Your task to perform on an android device: turn on airplane mode Image 0: 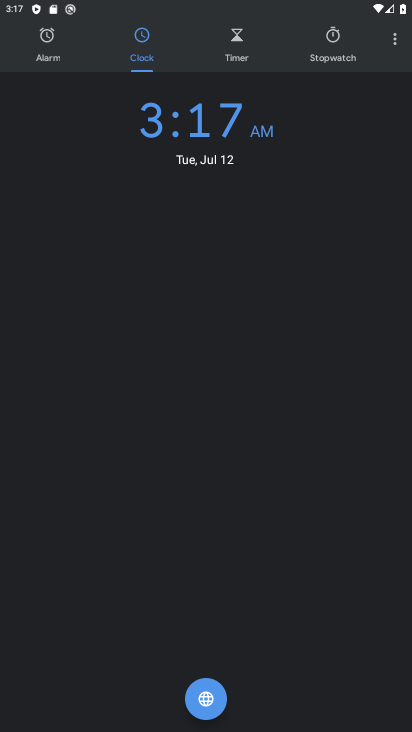
Step 0: press home button
Your task to perform on an android device: turn on airplane mode Image 1: 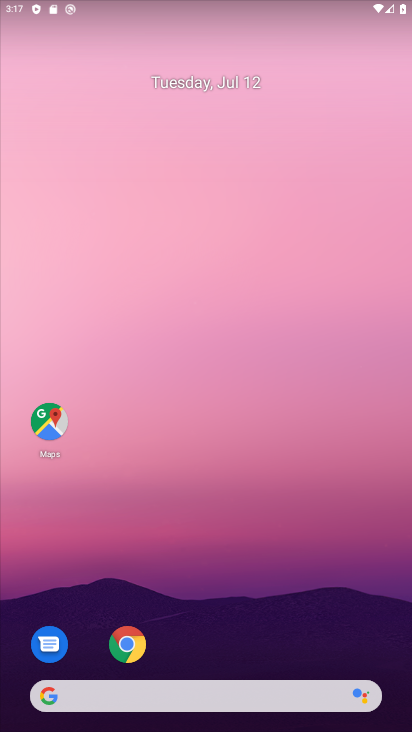
Step 1: drag from (251, 432) to (219, 62)
Your task to perform on an android device: turn on airplane mode Image 2: 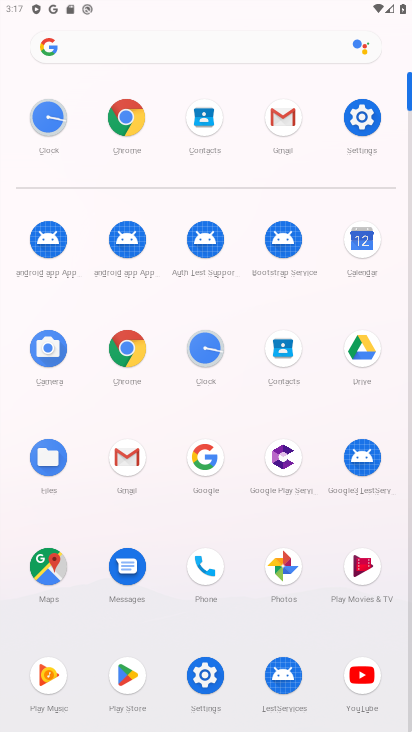
Step 2: click (369, 116)
Your task to perform on an android device: turn on airplane mode Image 3: 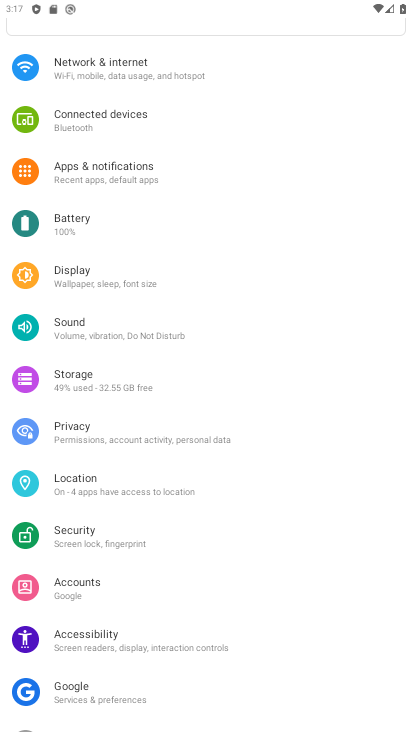
Step 3: click (131, 61)
Your task to perform on an android device: turn on airplane mode Image 4: 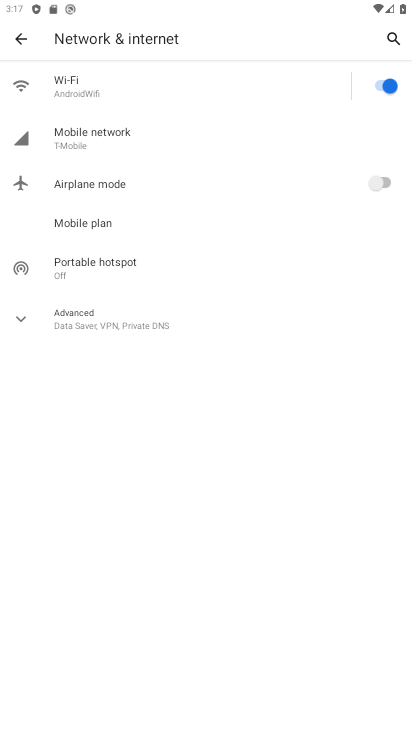
Step 4: click (383, 180)
Your task to perform on an android device: turn on airplane mode Image 5: 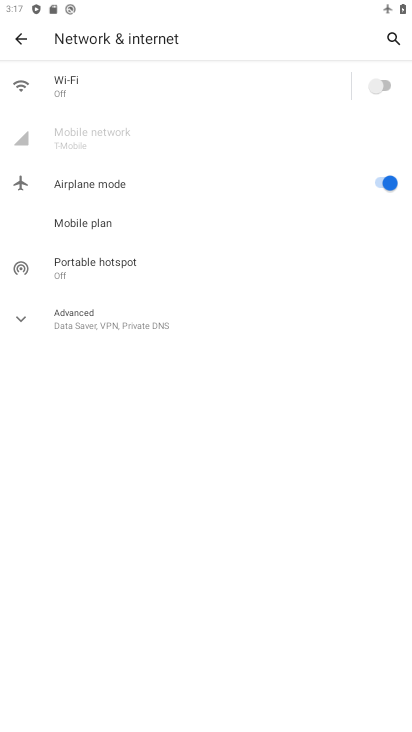
Step 5: task complete